Your task to perform on an android device: turn notification dots off Image 0: 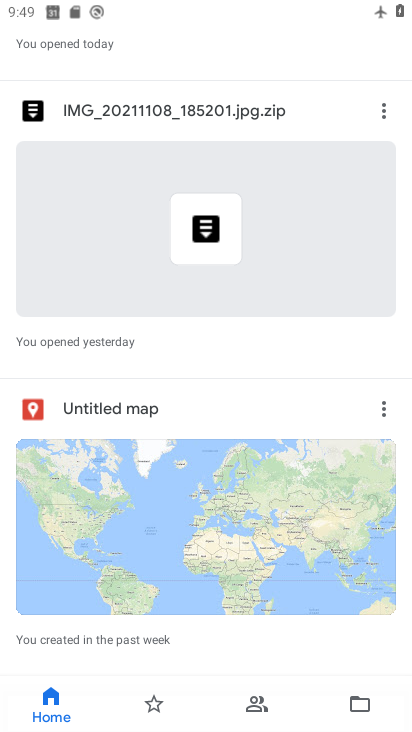
Step 0: drag from (148, 516) to (204, 180)
Your task to perform on an android device: turn notification dots off Image 1: 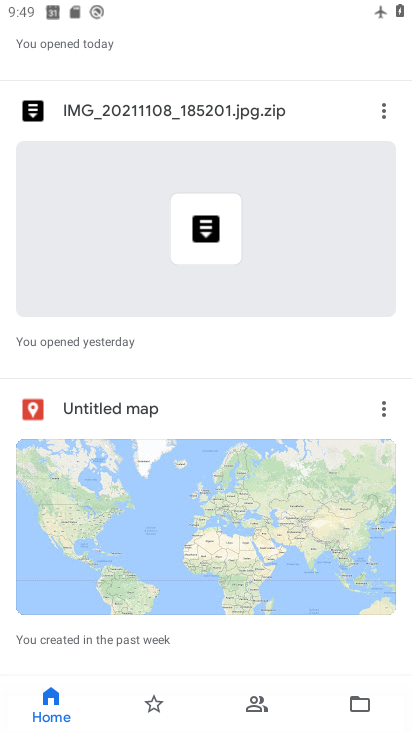
Step 1: press home button
Your task to perform on an android device: turn notification dots off Image 2: 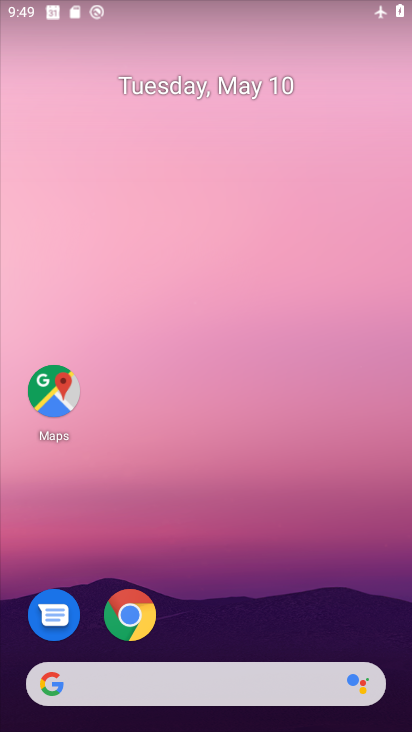
Step 2: drag from (173, 626) to (251, 164)
Your task to perform on an android device: turn notification dots off Image 3: 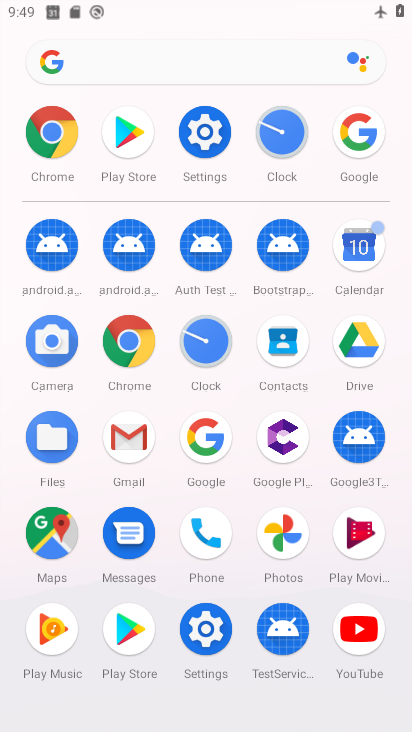
Step 3: click (203, 125)
Your task to perform on an android device: turn notification dots off Image 4: 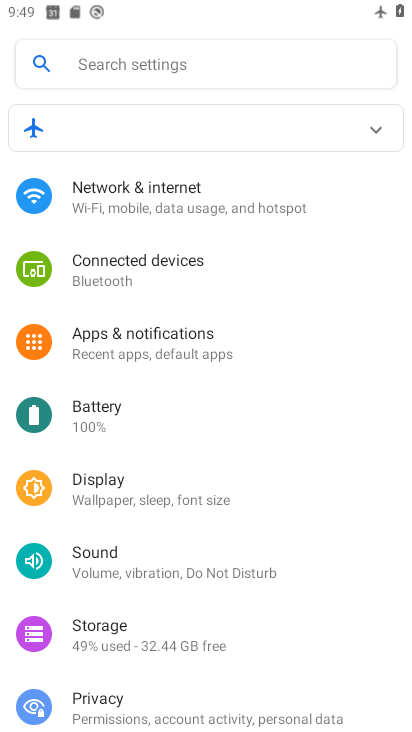
Step 4: click (172, 318)
Your task to perform on an android device: turn notification dots off Image 5: 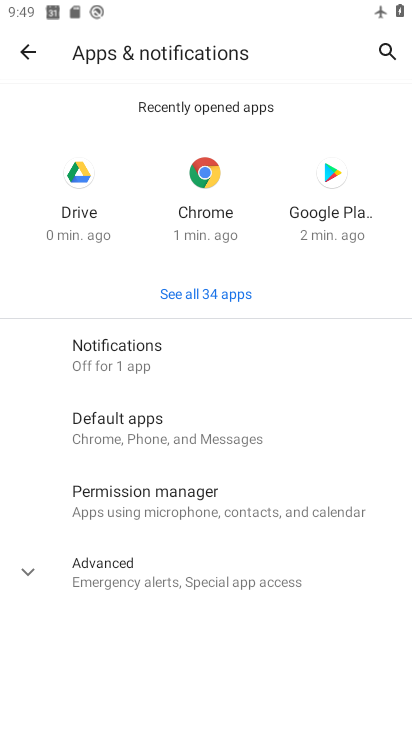
Step 5: click (142, 347)
Your task to perform on an android device: turn notification dots off Image 6: 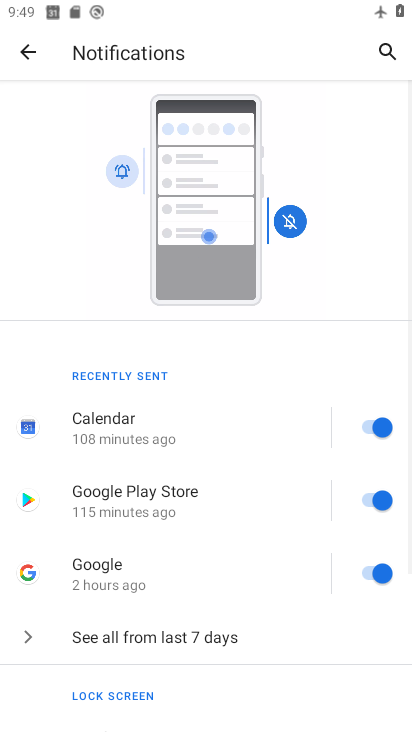
Step 6: drag from (276, 597) to (322, 180)
Your task to perform on an android device: turn notification dots off Image 7: 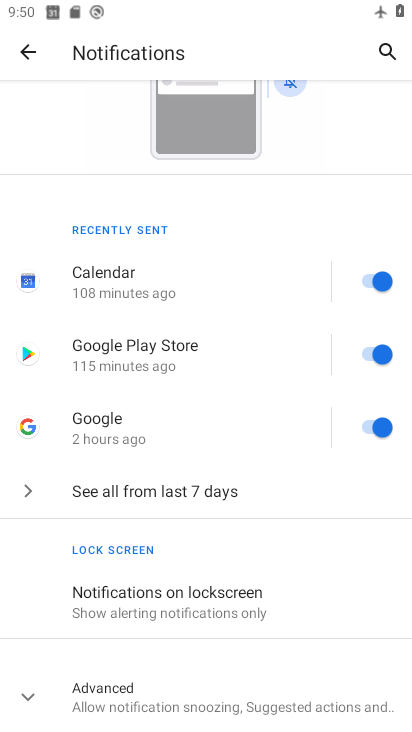
Step 7: click (132, 688)
Your task to perform on an android device: turn notification dots off Image 8: 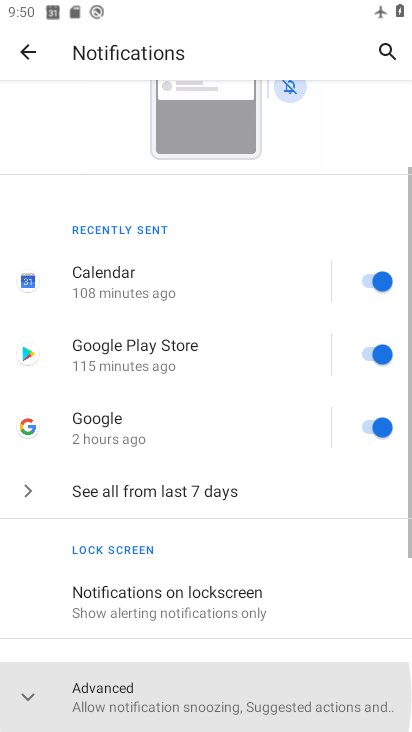
Step 8: drag from (133, 686) to (264, 136)
Your task to perform on an android device: turn notification dots off Image 9: 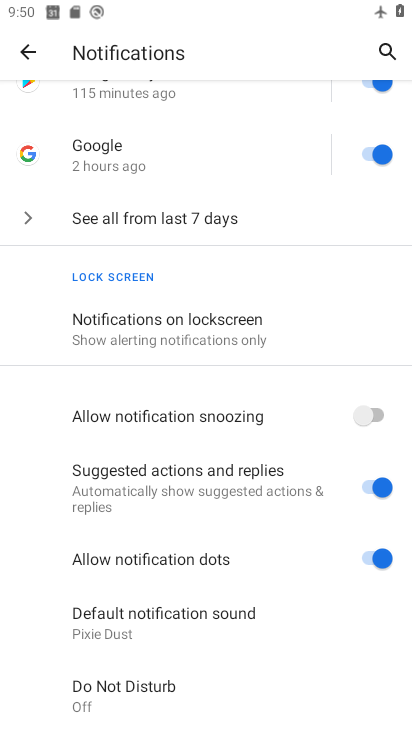
Step 9: click (375, 555)
Your task to perform on an android device: turn notification dots off Image 10: 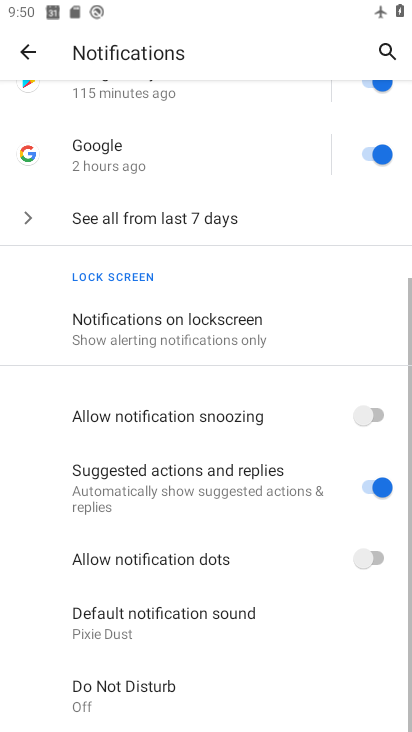
Step 10: task complete